Your task to perform on an android device: check battery use Image 0: 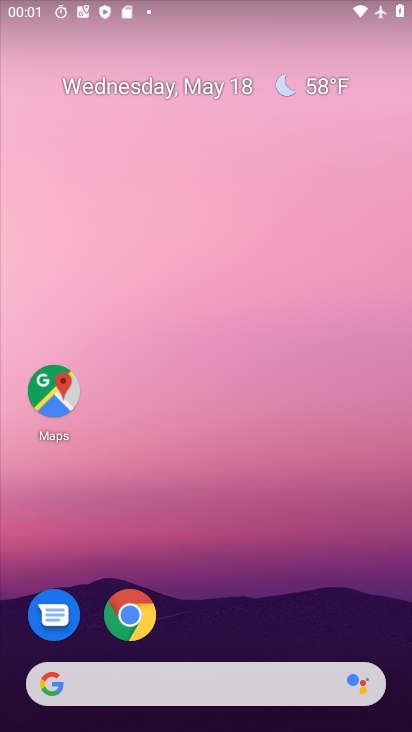
Step 0: drag from (232, 633) to (291, 171)
Your task to perform on an android device: check battery use Image 1: 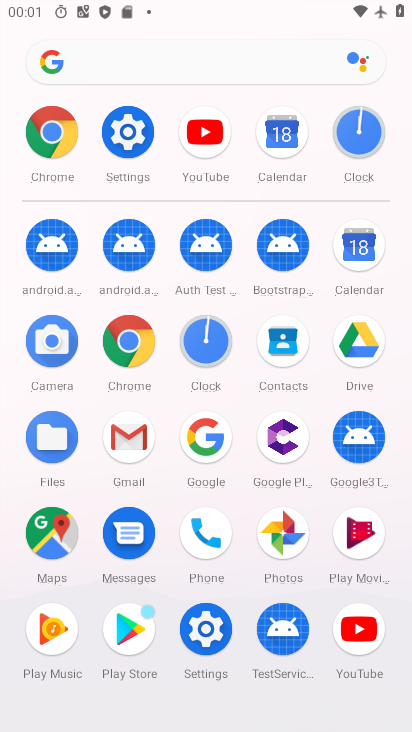
Step 1: click (119, 129)
Your task to perform on an android device: check battery use Image 2: 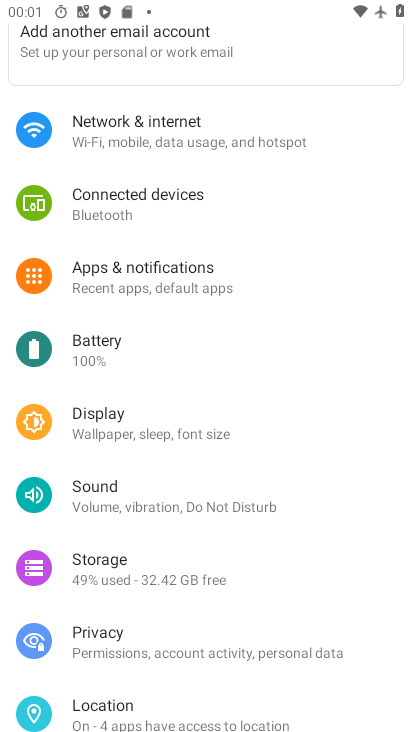
Step 2: click (132, 352)
Your task to perform on an android device: check battery use Image 3: 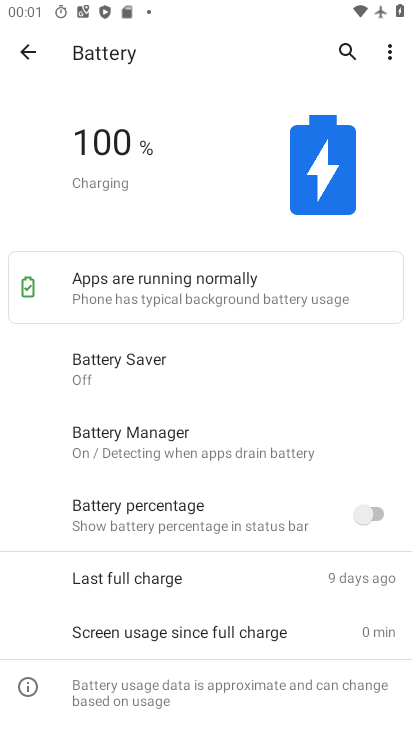
Step 3: drag from (259, 544) to (272, 405)
Your task to perform on an android device: check battery use Image 4: 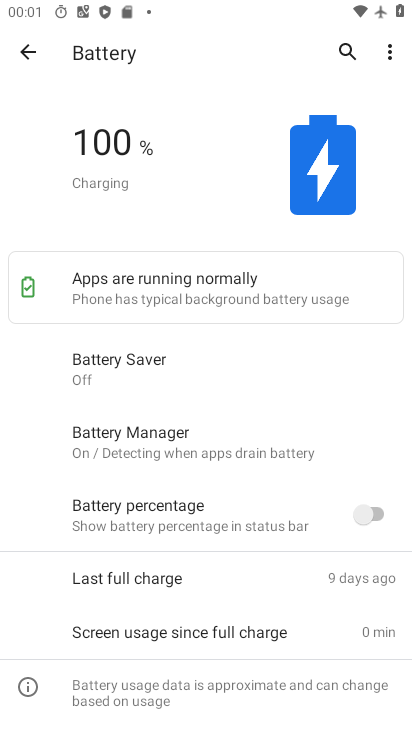
Step 4: click (382, 57)
Your task to perform on an android device: check battery use Image 5: 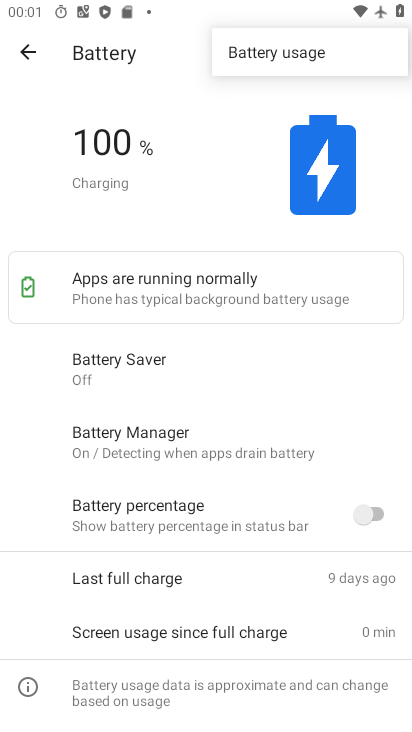
Step 5: click (327, 62)
Your task to perform on an android device: check battery use Image 6: 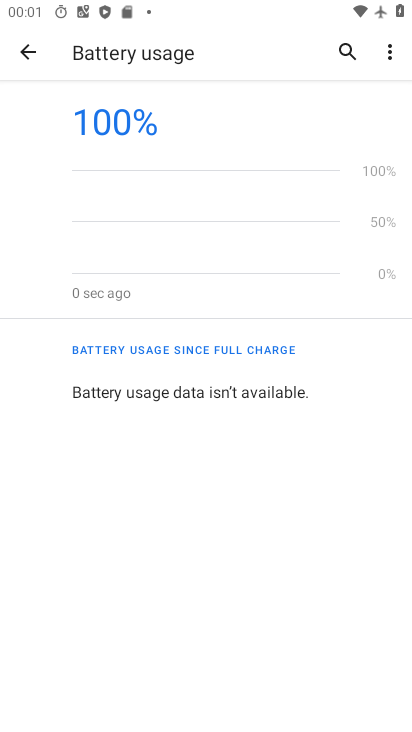
Step 6: task complete